Your task to perform on an android device: show emergency info Image 0: 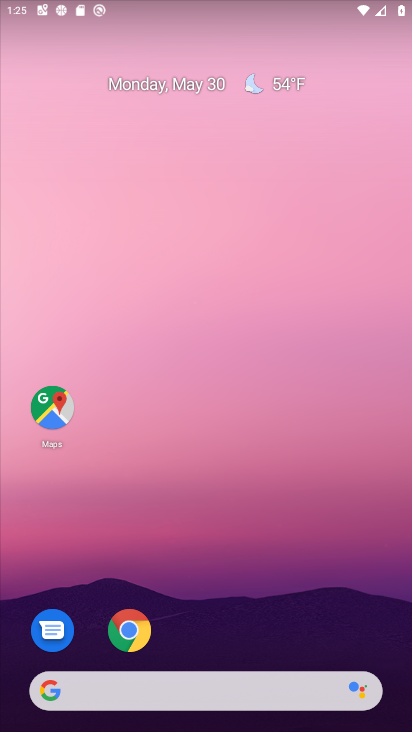
Step 0: press home button
Your task to perform on an android device: show emergency info Image 1: 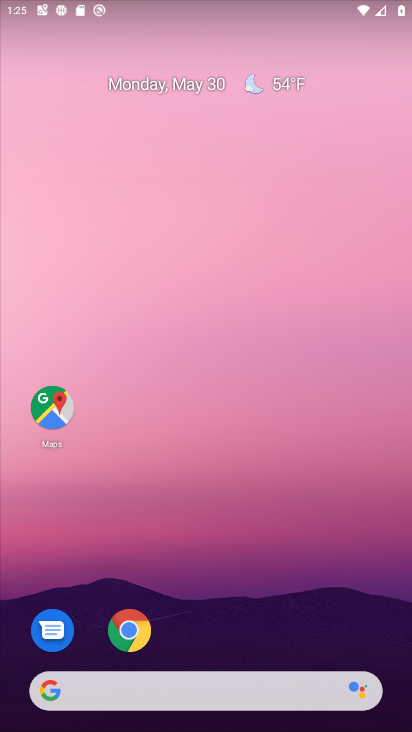
Step 1: drag from (193, 630) to (300, 90)
Your task to perform on an android device: show emergency info Image 2: 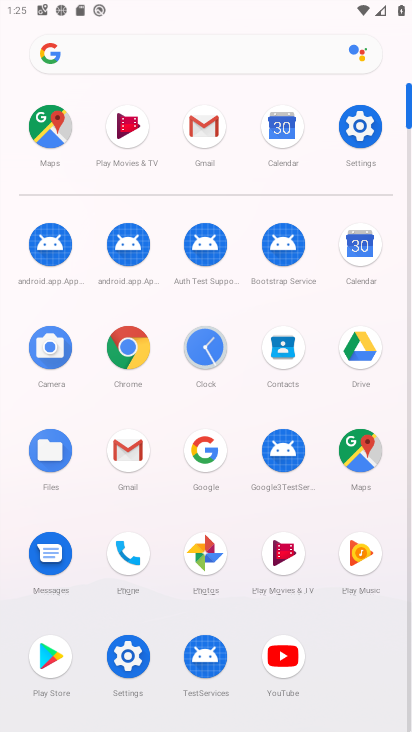
Step 2: click (368, 129)
Your task to perform on an android device: show emergency info Image 3: 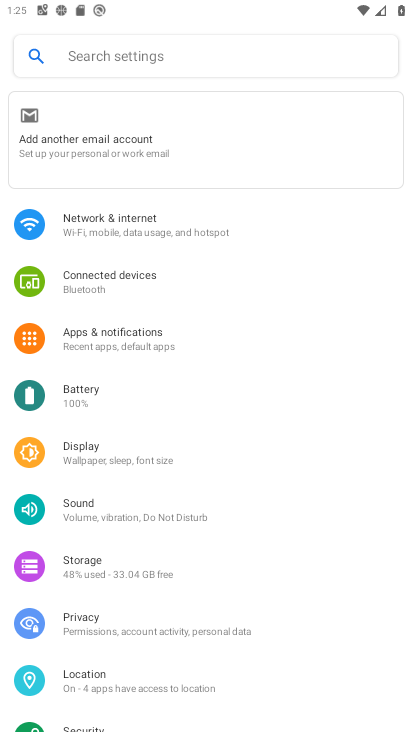
Step 3: drag from (190, 659) to (327, 187)
Your task to perform on an android device: show emergency info Image 4: 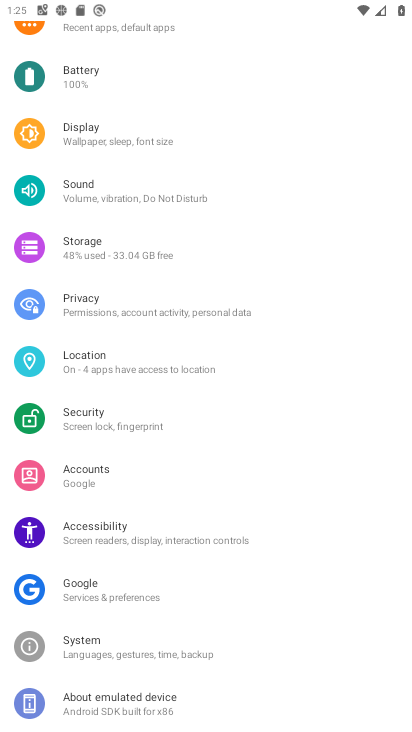
Step 4: click (140, 704)
Your task to perform on an android device: show emergency info Image 5: 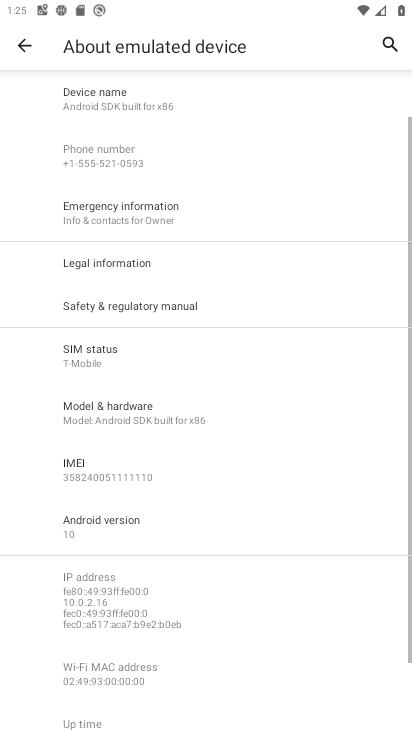
Step 5: click (156, 210)
Your task to perform on an android device: show emergency info Image 6: 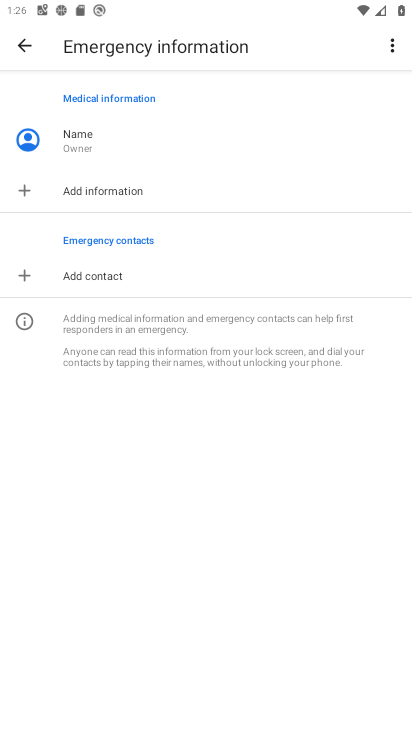
Step 6: task complete